Your task to perform on an android device: empty trash in google photos Image 0: 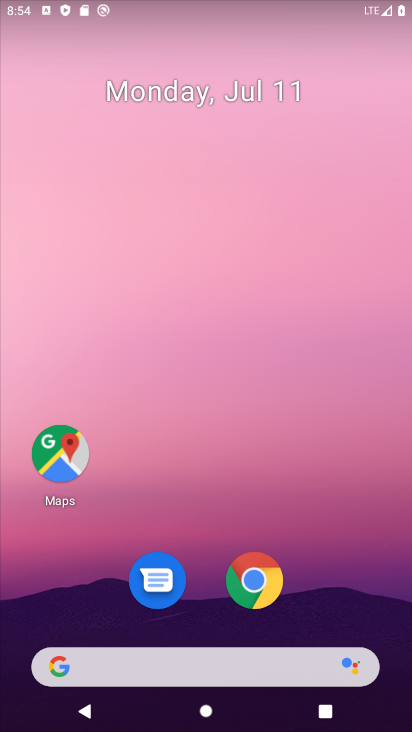
Step 0: drag from (324, 529) to (329, 52)
Your task to perform on an android device: empty trash in google photos Image 1: 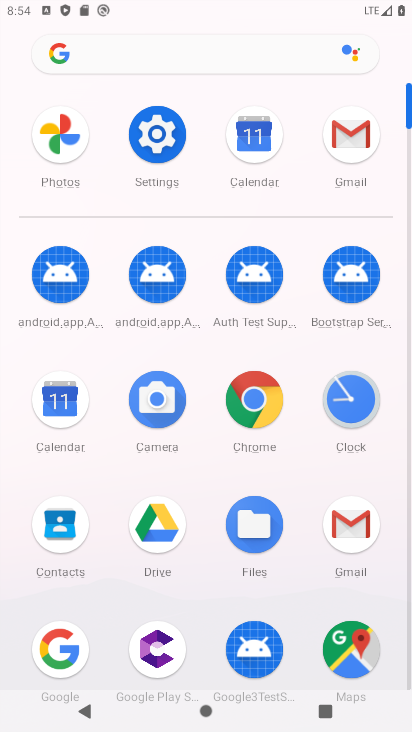
Step 1: drag from (286, 518) to (287, 164)
Your task to perform on an android device: empty trash in google photos Image 2: 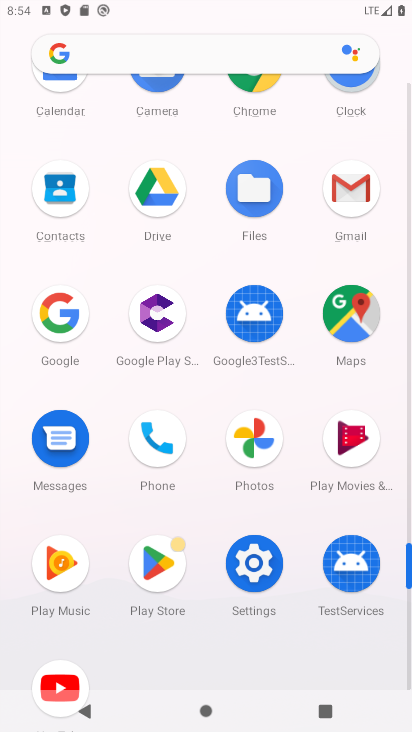
Step 2: click (271, 432)
Your task to perform on an android device: empty trash in google photos Image 3: 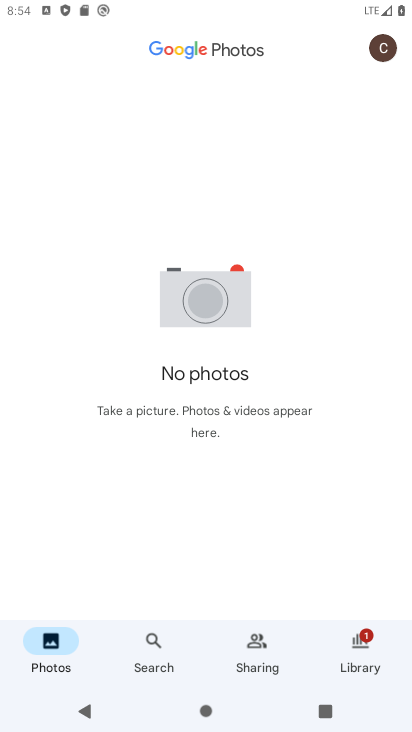
Step 3: drag from (101, 152) to (130, 419)
Your task to perform on an android device: empty trash in google photos Image 4: 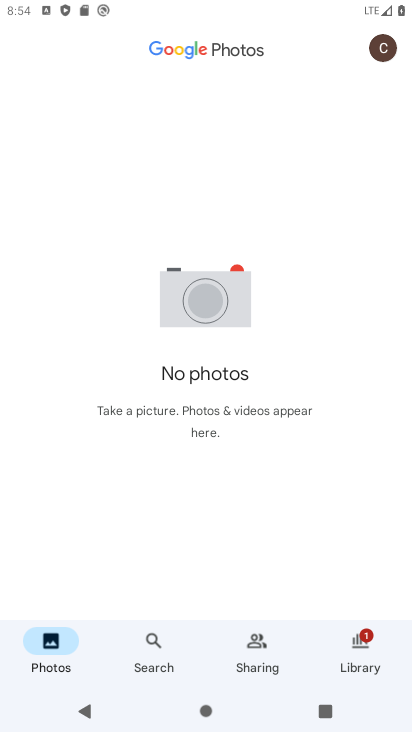
Step 4: click (153, 651)
Your task to perform on an android device: empty trash in google photos Image 5: 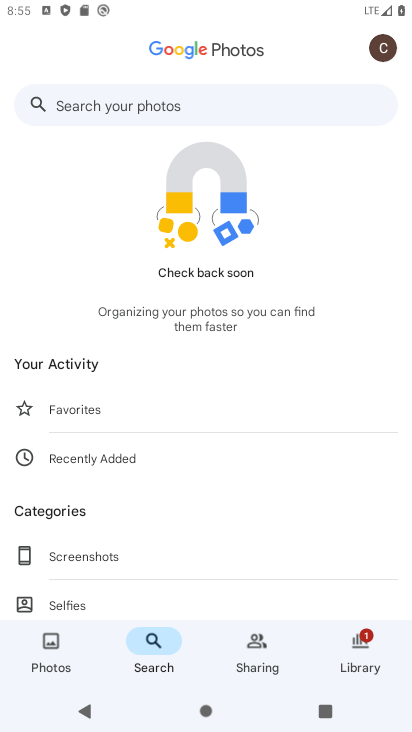
Step 5: drag from (178, 471) to (185, 120)
Your task to perform on an android device: empty trash in google photos Image 6: 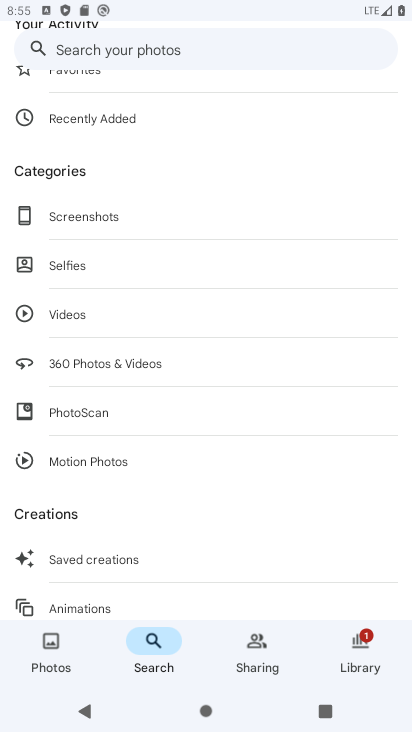
Step 6: drag from (215, 451) to (177, 119)
Your task to perform on an android device: empty trash in google photos Image 7: 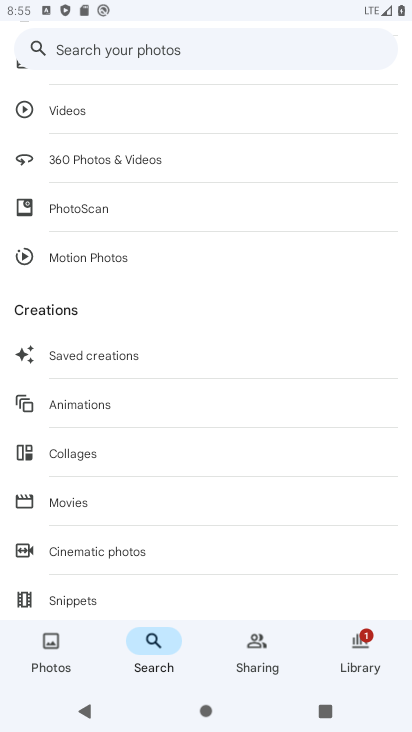
Step 7: drag from (232, 445) to (227, 263)
Your task to perform on an android device: empty trash in google photos Image 8: 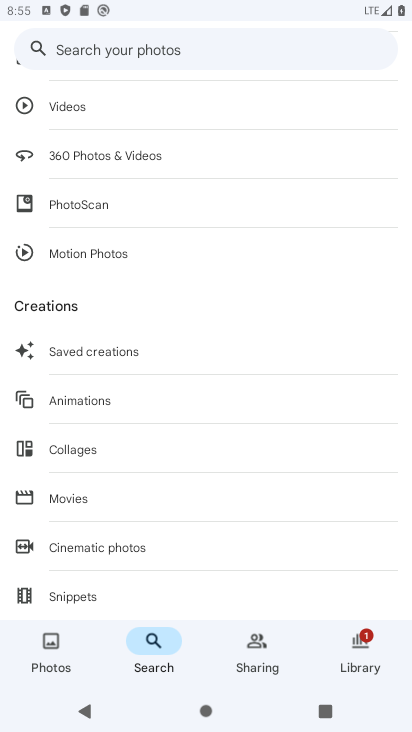
Step 8: click (246, 48)
Your task to perform on an android device: empty trash in google photos Image 9: 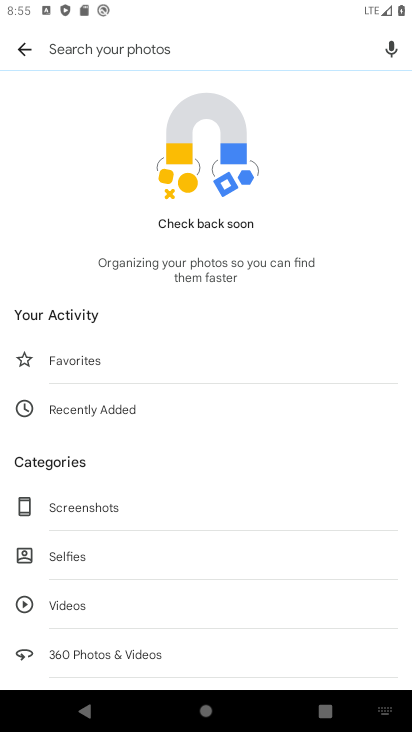
Step 9: type "trash"
Your task to perform on an android device: empty trash in google photos Image 10: 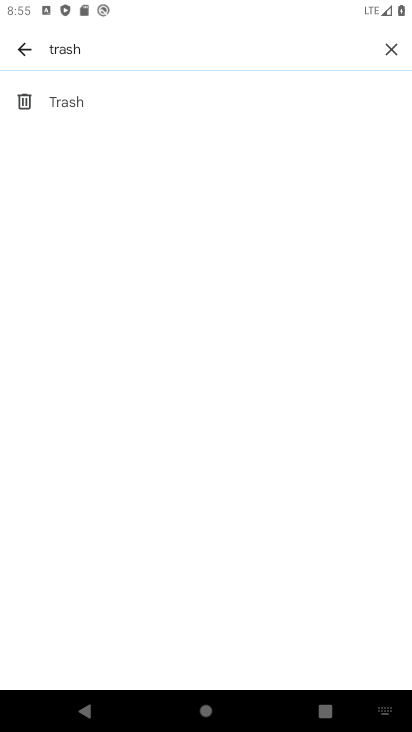
Step 10: click (62, 98)
Your task to perform on an android device: empty trash in google photos Image 11: 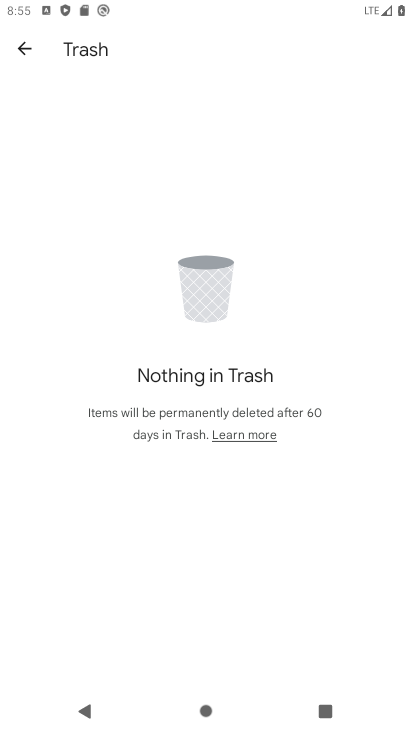
Step 11: task complete